Your task to perform on an android device: Open privacy settings Image 0: 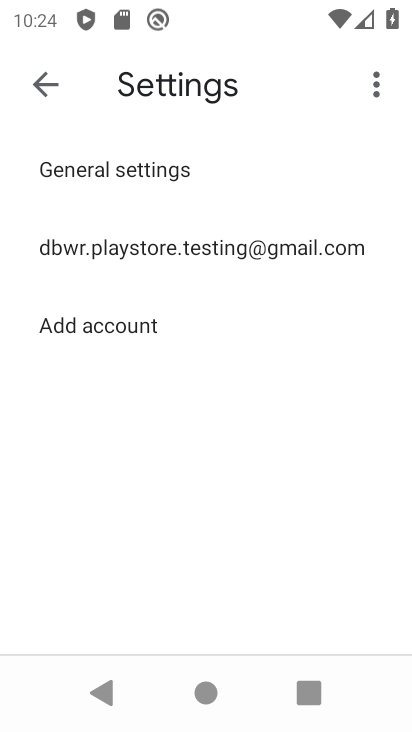
Step 0: press home button
Your task to perform on an android device: Open privacy settings Image 1: 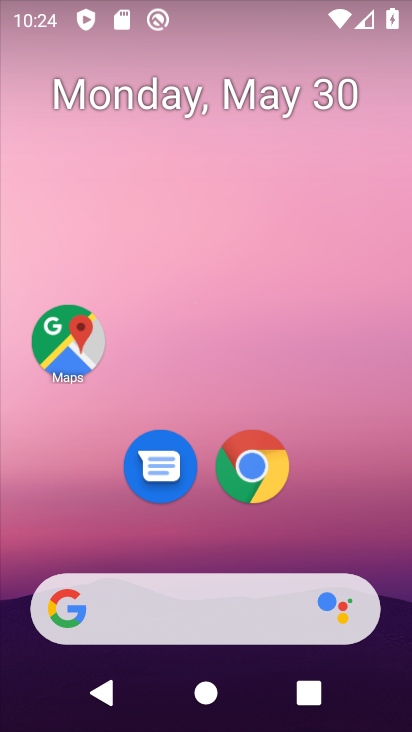
Step 1: drag from (163, 730) to (207, 110)
Your task to perform on an android device: Open privacy settings Image 2: 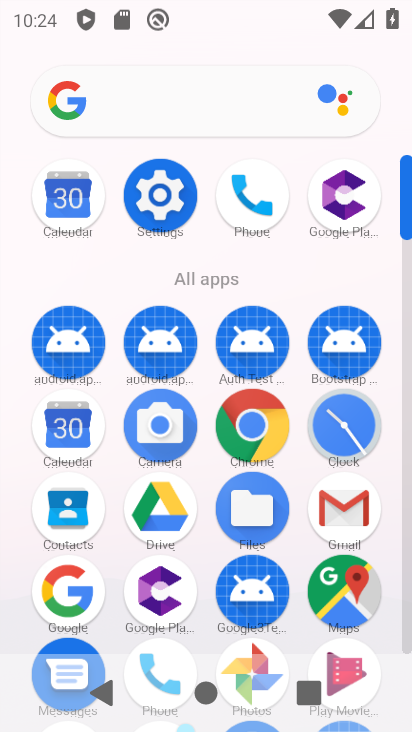
Step 2: click (160, 227)
Your task to perform on an android device: Open privacy settings Image 3: 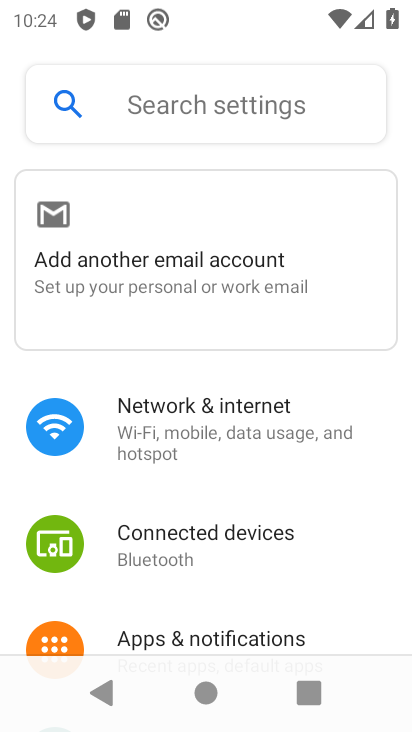
Step 3: drag from (310, 610) to (315, 135)
Your task to perform on an android device: Open privacy settings Image 4: 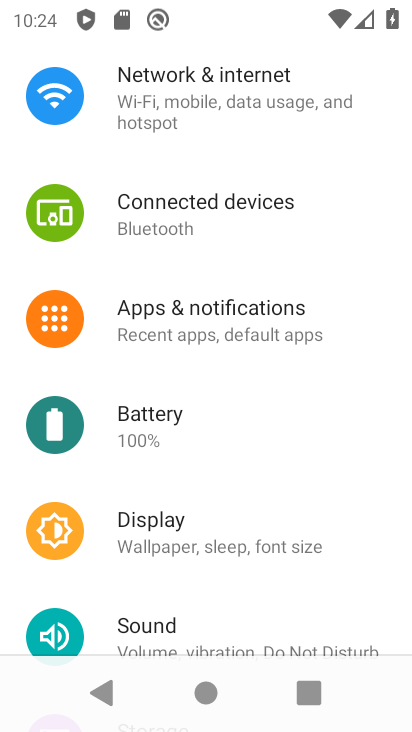
Step 4: drag from (259, 538) to (223, 94)
Your task to perform on an android device: Open privacy settings Image 5: 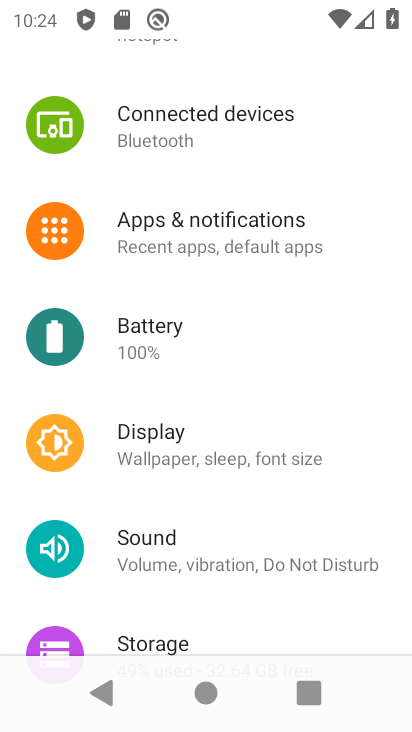
Step 5: drag from (228, 626) to (313, 232)
Your task to perform on an android device: Open privacy settings Image 6: 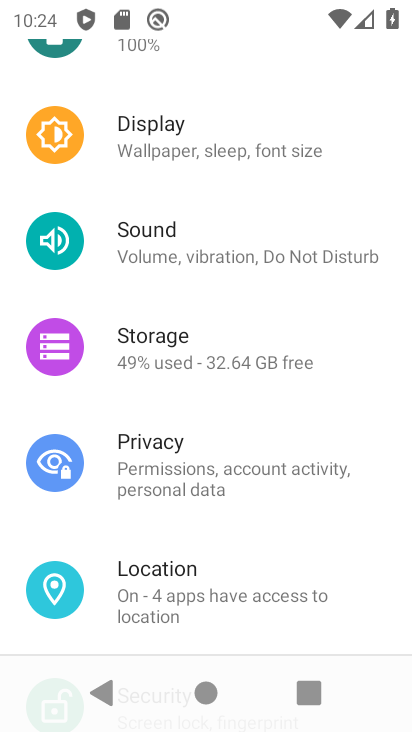
Step 6: click (166, 464)
Your task to perform on an android device: Open privacy settings Image 7: 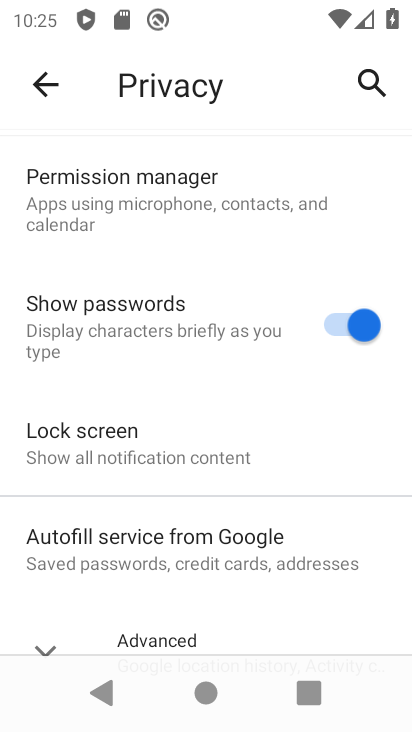
Step 7: task complete